Your task to perform on an android device: check storage Image 0: 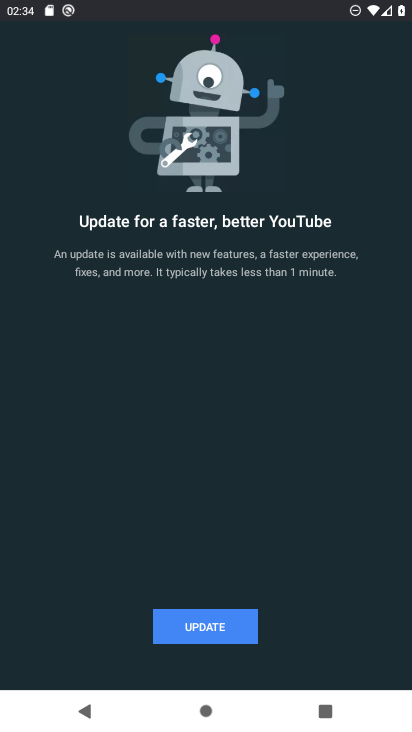
Step 0: press home button
Your task to perform on an android device: check storage Image 1: 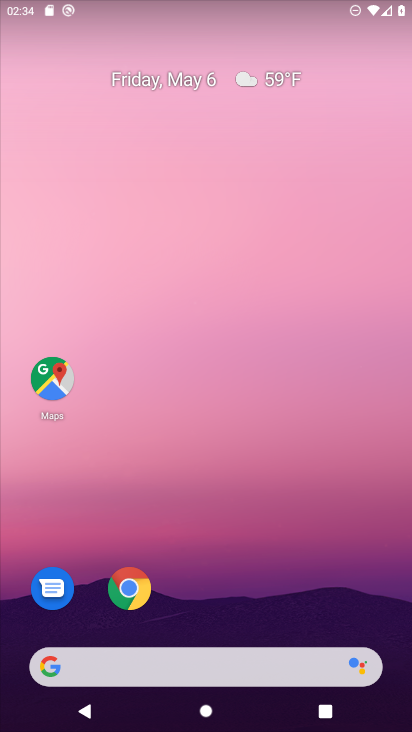
Step 1: drag from (237, 613) to (219, 237)
Your task to perform on an android device: check storage Image 2: 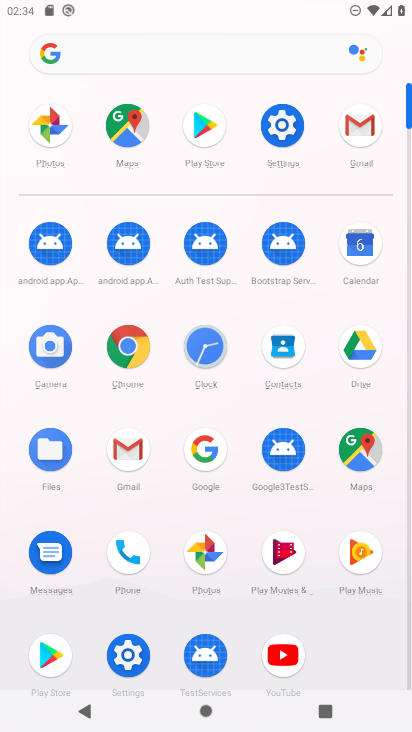
Step 2: click (271, 119)
Your task to perform on an android device: check storage Image 3: 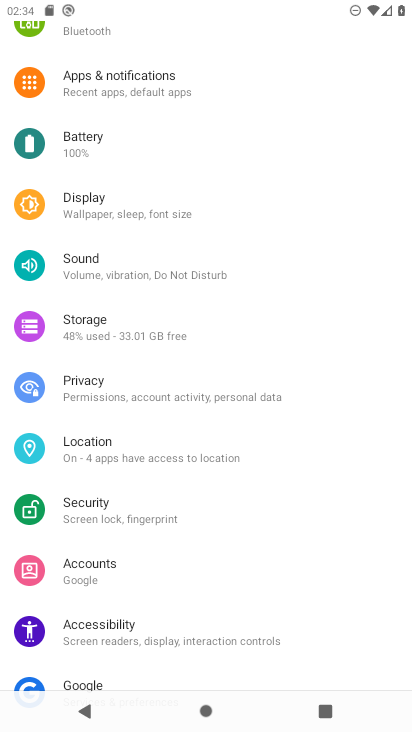
Step 3: click (92, 319)
Your task to perform on an android device: check storage Image 4: 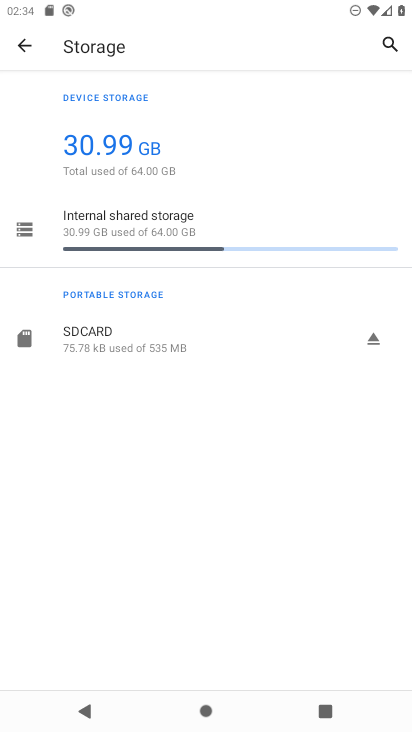
Step 4: click (237, 219)
Your task to perform on an android device: check storage Image 5: 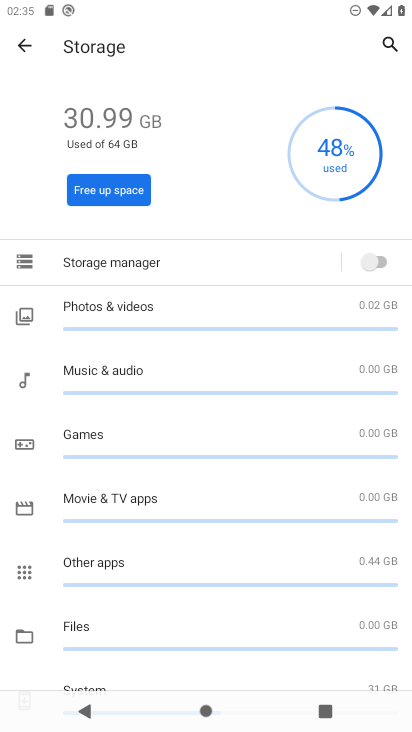
Step 5: task complete